Your task to perform on an android device: Open Android settings Image 0: 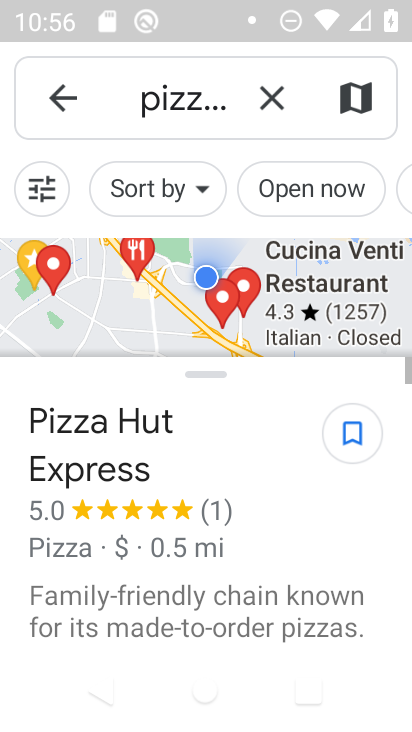
Step 0: press home button
Your task to perform on an android device: Open Android settings Image 1: 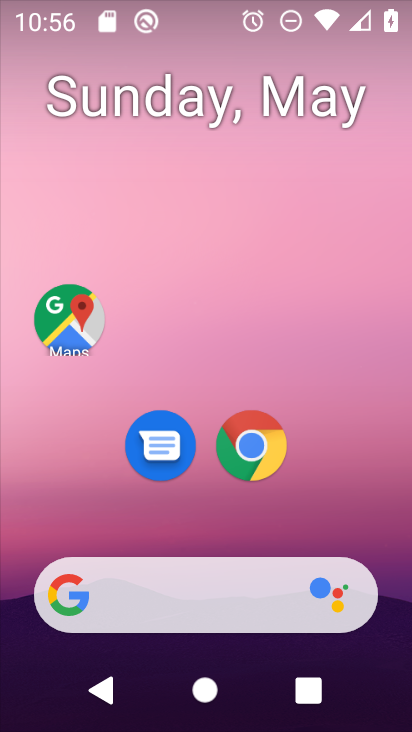
Step 1: drag from (170, 622) to (166, 136)
Your task to perform on an android device: Open Android settings Image 2: 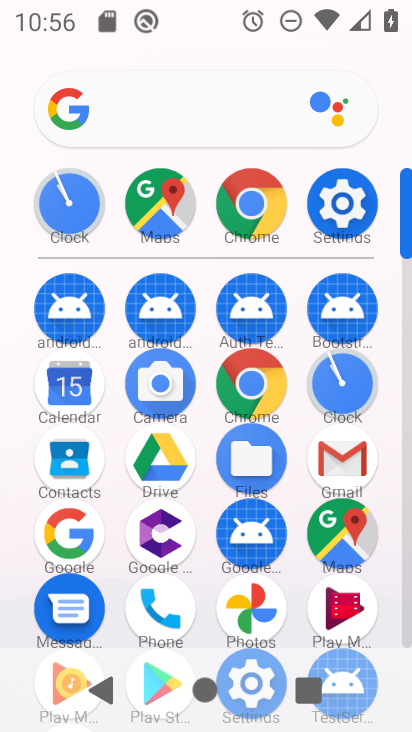
Step 2: click (347, 221)
Your task to perform on an android device: Open Android settings Image 3: 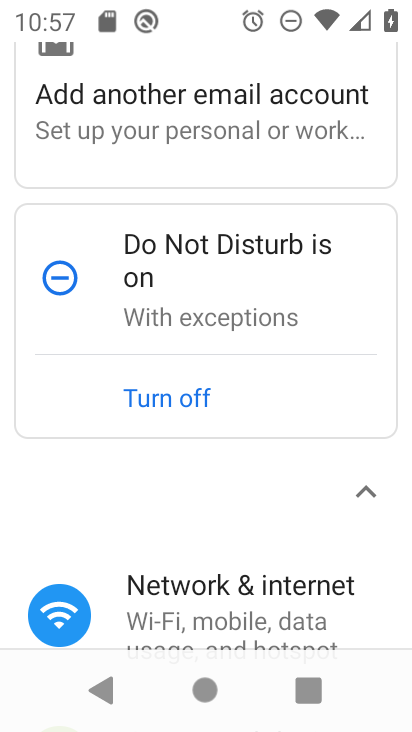
Step 3: drag from (195, 547) to (227, 78)
Your task to perform on an android device: Open Android settings Image 4: 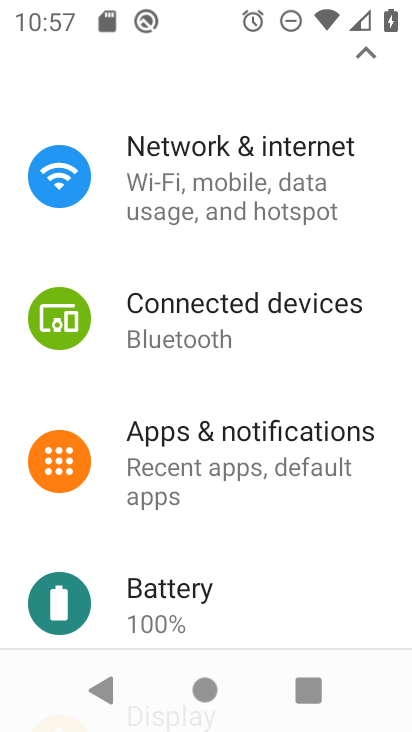
Step 4: drag from (244, 489) to (144, 103)
Your task to perform on an android device: Open Android settings Image 5: 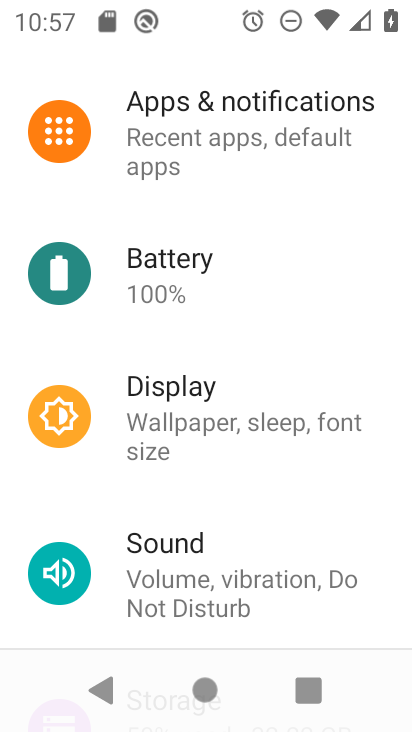
Step 5: drag from (197, 525) to (197, 185)
Your task to perform on an android device: Open Android settings Image 6: 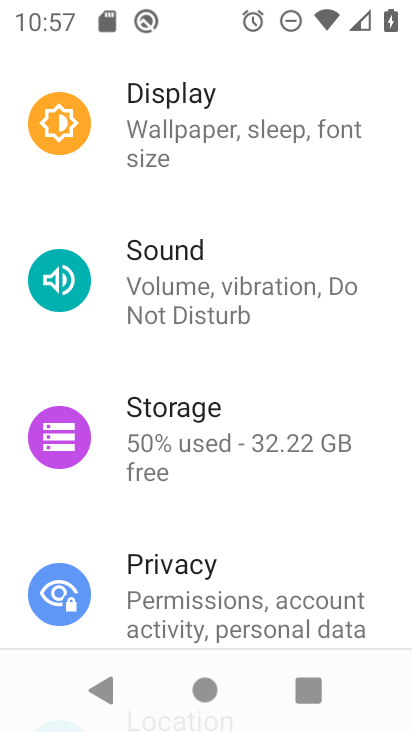
Step 6: drag from (195, 501) to (150, 233)
Your task to perform on an android device: Open Android settings Image 7: 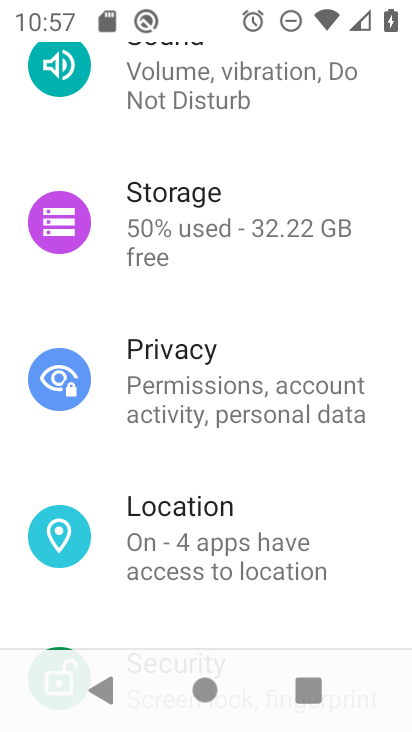
Step 7: drag from (146, 554) to (138, 109)
Your task to perform on an android device: Open Android settings Image 8: 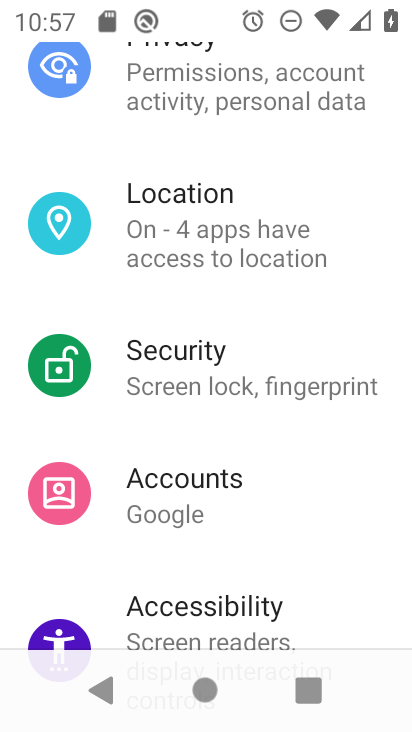
Step 8: drag from (164, 511) to (273, 113)
Your task to perform on an android device: Open Android settings Image 9: 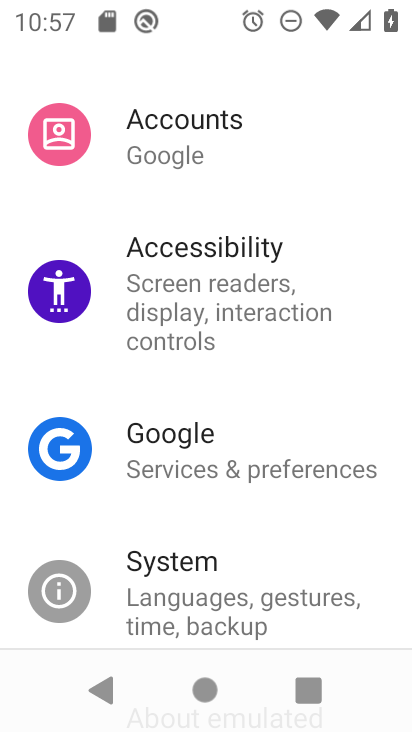
Step 9: drag from (199, 462) to (261, 118)
Your task to perform on an android device: Open Android settings Image 10: 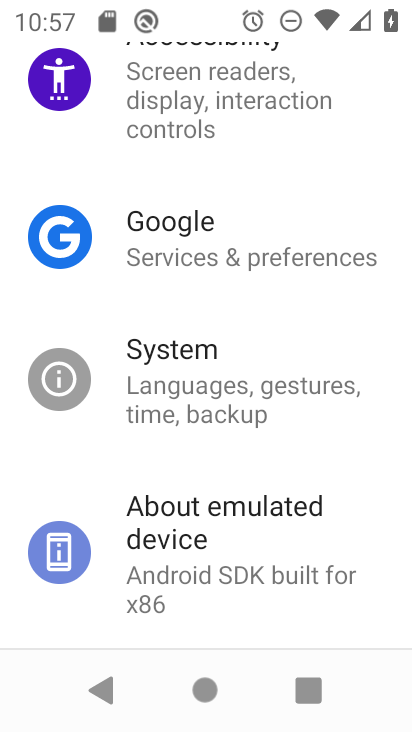
Step 10: drag from (210, 476) to (273, 149)
Your task to perform on an android device: Open Android settings Image 11: 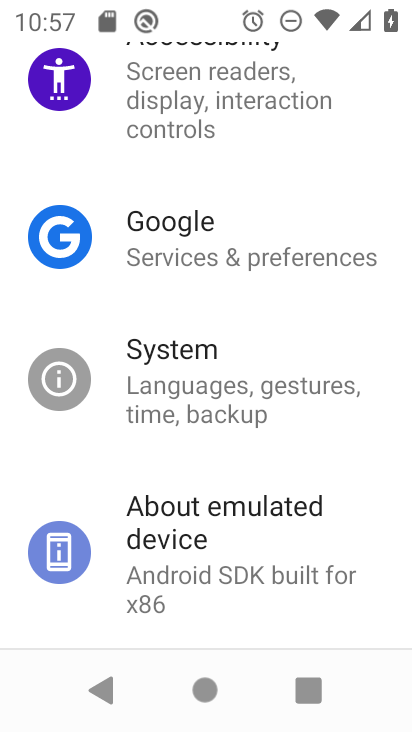
Step 11: click (180, 543)
Your task to perform on an android device: Open Android settings Image 12: 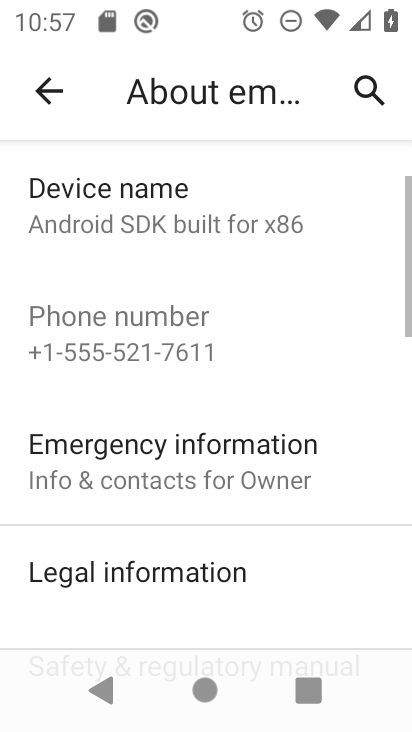
Step 12: drag from (198, 494) to (233, 123)
Your task to perform on an android device: Open Android settings Image 13: 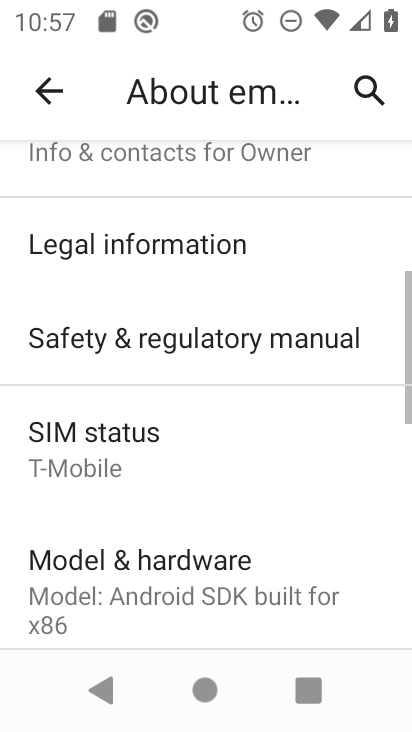
Step 13: drag from (218, 500) to (218, 181)
Your task to perform on an android device: Open Android settings Image 14: 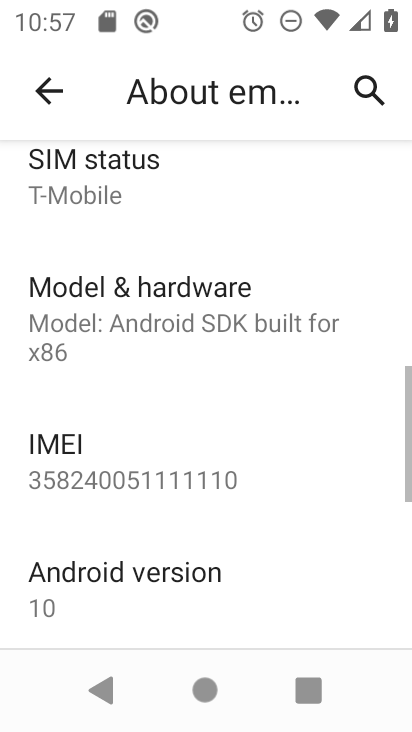
Step 14: click (179, 590)
Your task to perform on an android device: Open Android settings Image 15: 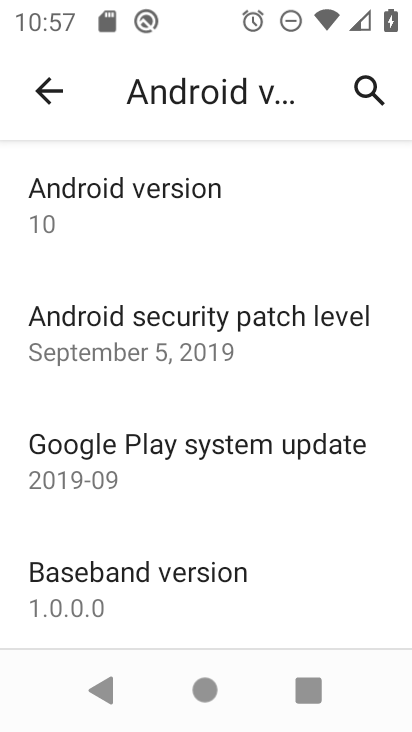
Step 15: task complete